Your task to perform on an android device: Open settings on Google Maps Image 0: 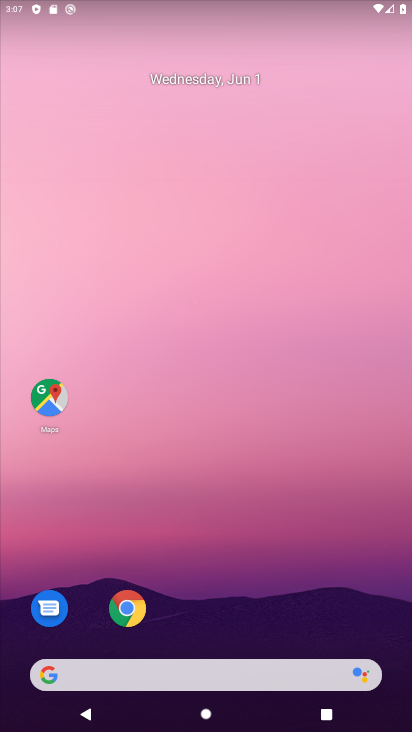
Step 0: click (49, 385)
Your task to perform on an android device: Open settings on Google Maps Image 1: 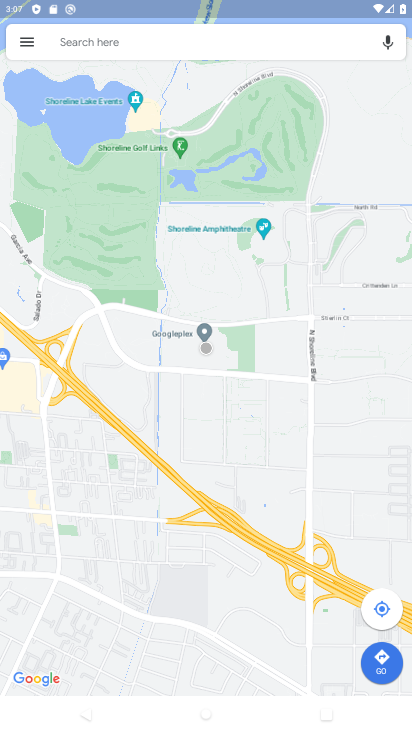
Step 1: click (26, 53)
Your task to perform on an android device: Open settings on Google Maps Image 2: 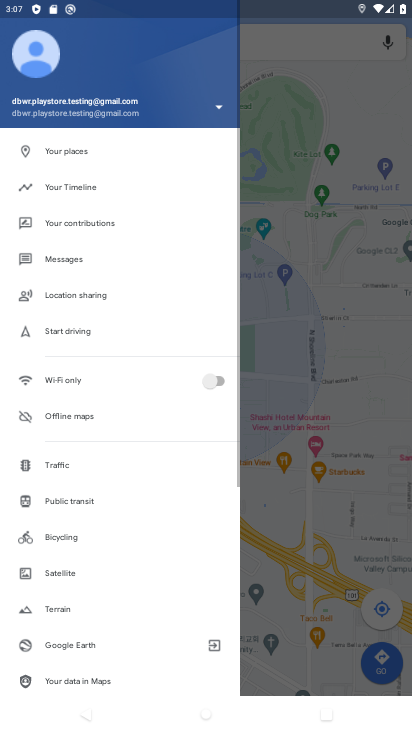
Step 2: drag from (94, 581) to (125, 82)
Your task to perform on an android device: Open settings on Google Maps Image 3: 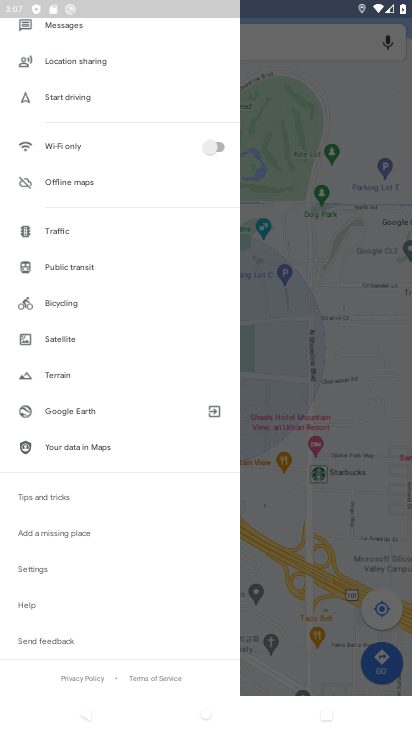
Step 3: click (36, 573)
Your task to perform on an android device: Open settings on Google Maps Image 4: 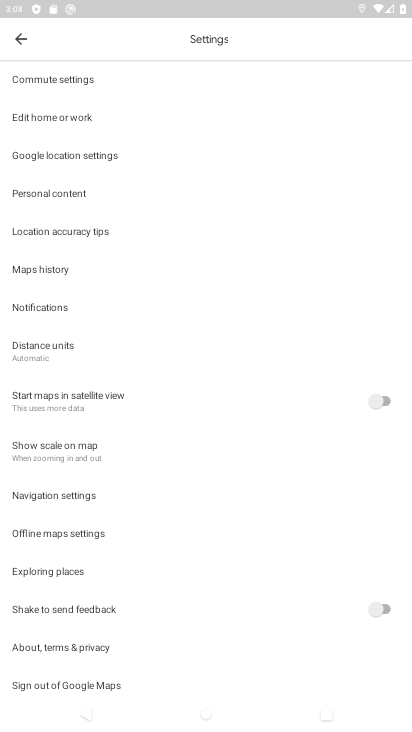
Step 4: task complete